Your task to perform on an android device: move an email to a new category in the gmail app Image 0: 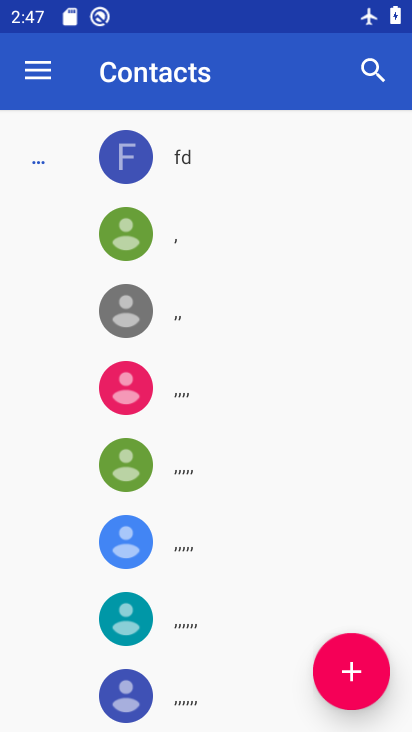
Step 0: press home button
Your task to perform on an android device: move an email to a new category in the gmail app Image 1: 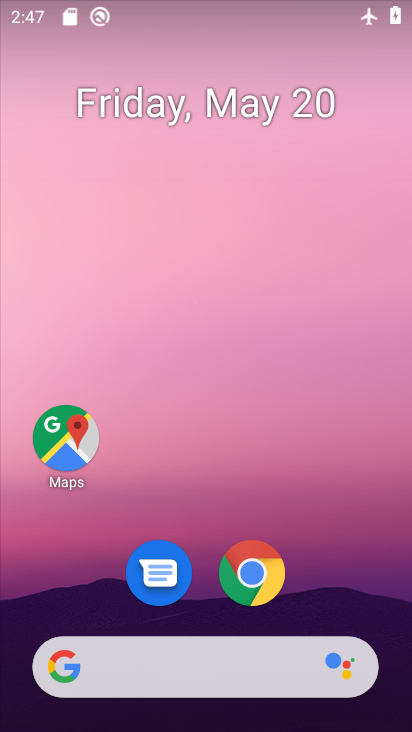
Step 1: drag from (208, 615) to (255, 273)
Your task to perform on an android device: move an email to a new category in the gmail app Image 2: 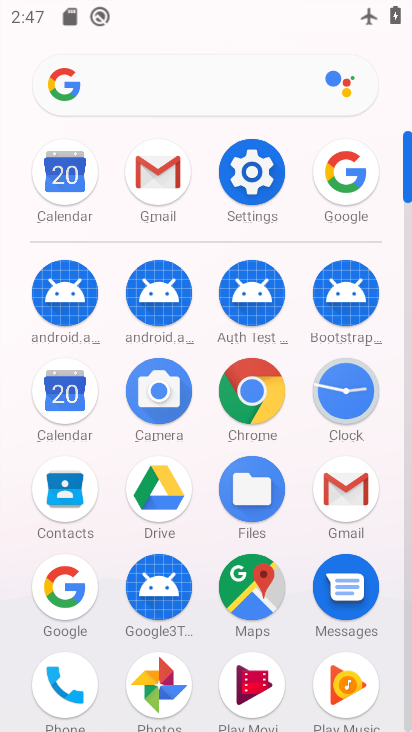
Step 2: click (330, 488)
Your task to perform on an android device: move an email to a new category in the gmail app Image 3: 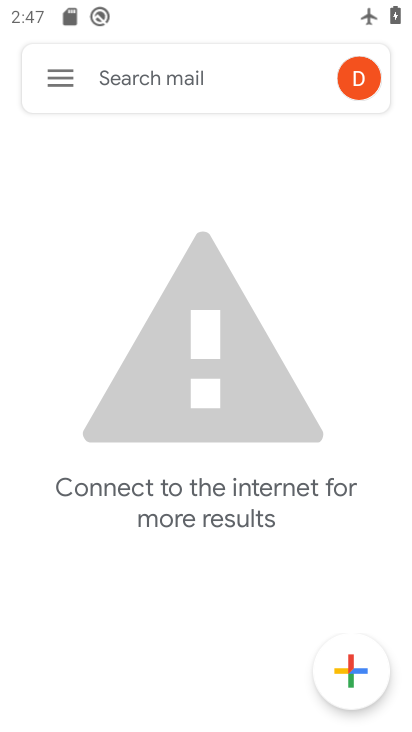
Step 3: click (47, 81)
Your task to perform on an android device: move an email to a new category in the gmail app Image 4: 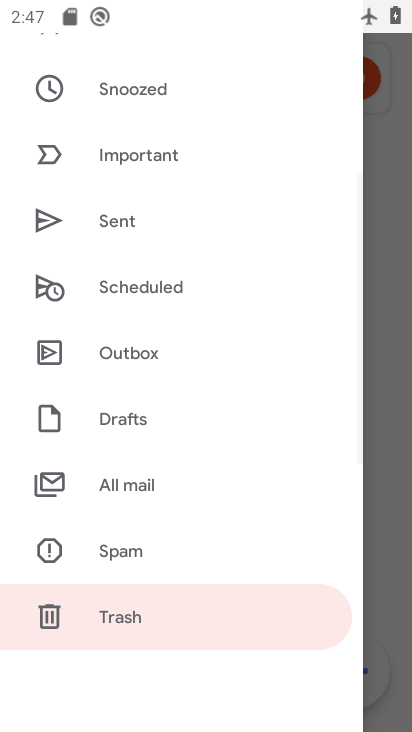
Step 4: click (145, 275)
Your task to perform on an android device: move an email to a new category in the gmail app Image 5: 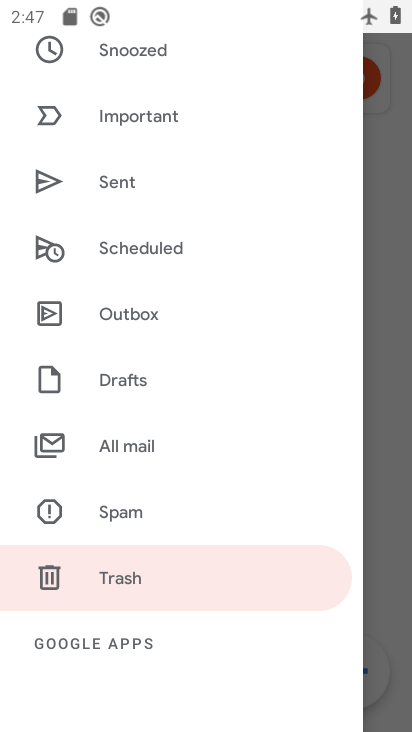
Step 5: click (98, 444)
Your task to perform on an android device: move an email to a new category in the gmail app Image 6: 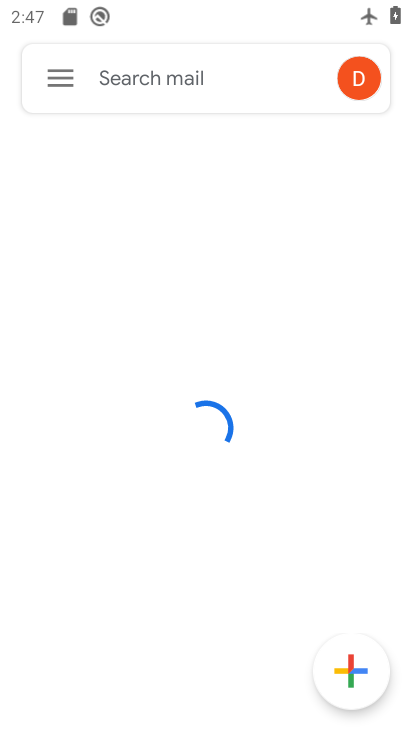
Step 6: task complete